Your task to perform on an android device: Open calendar and show me the second week of next month Image 0: 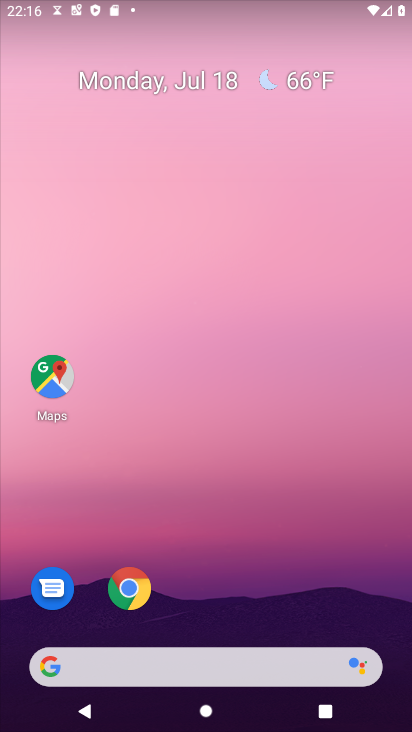
Step 0: press home button
Your task to perform on an android device: Open calendar and show me the second week of next month Image 1: 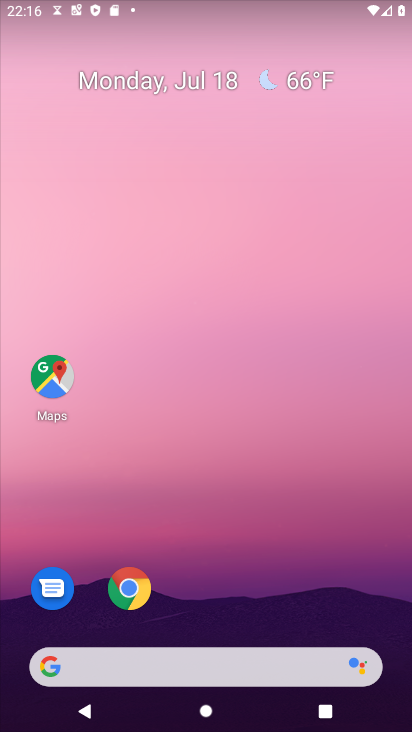
Step 1: drag from (178, 666) to (314, 135)
Your task to perform on an android device: Open calendar and show me the second week of next month Image 2: 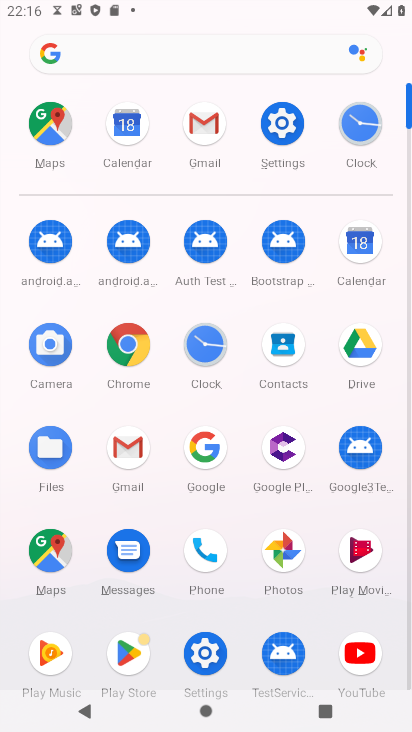
Step 2: click (369, 252)
Your task to perform on an android device: Open calendar and show me the second week of next month Image 3: 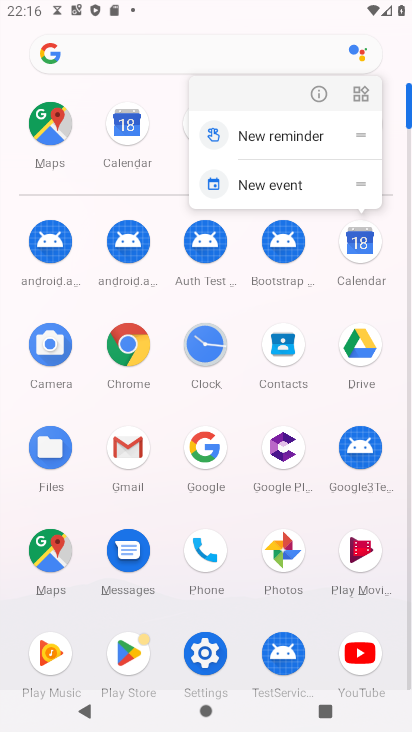
Step 3: click (357, 246)
Your task to perform on an android device: Open calendar and show me the second week of next month Image 4: 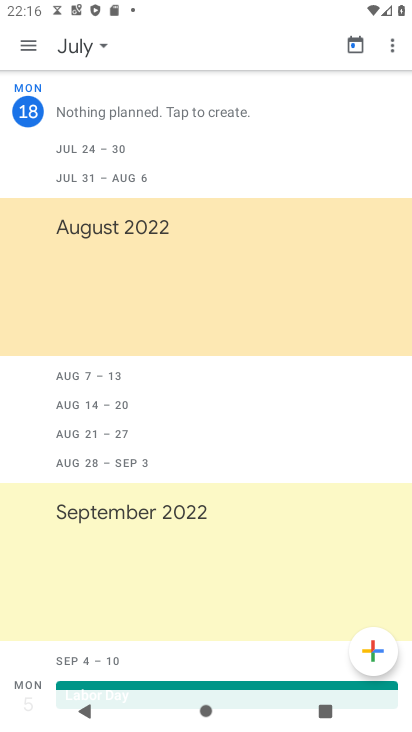
Step 4: click (75, 50)
Your task to perform on an android device: Open calendar and show me the second week of next month Image 5: 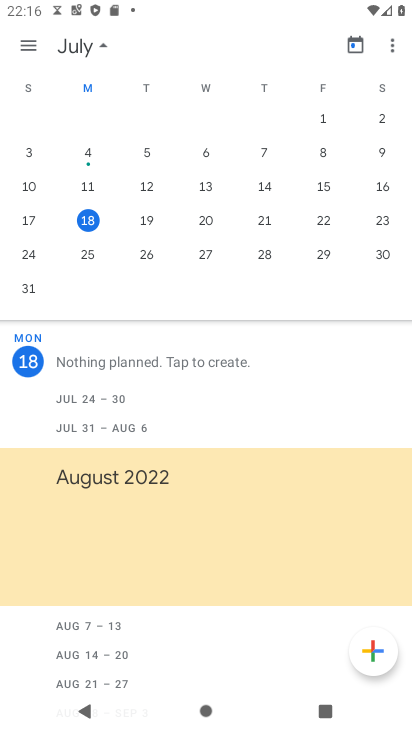
Step 5: drag from (369, 190) to (0, 181)
Your task to perform on an android device: Open calendar and show me the second week of next month Image 6: 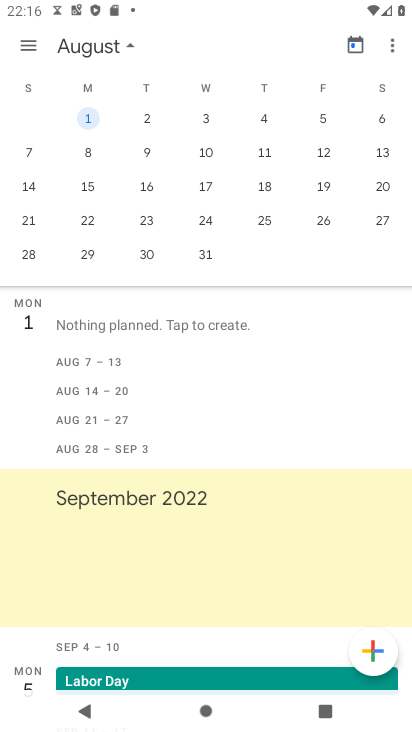
Step 6: click (30, 156)
Your task to perform on an android device: Open calendar and show me the second week of next month Image 7: 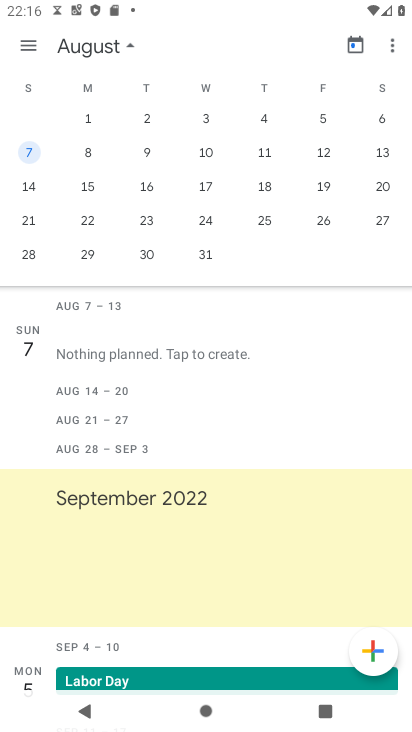
Step 7: click (31, 48)
Your task to perform on an android device: Open calendar and show me the second week of next month Image 8: 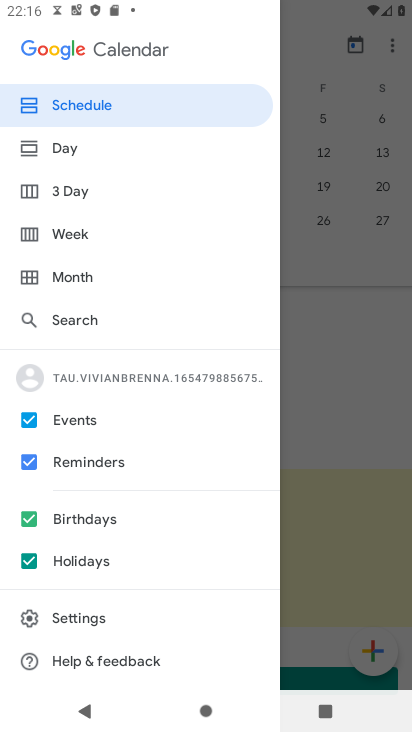
Step 8: click (73, 232)
Your task to perform on an android device: Open calendar and show me the second week of next month Image 9: 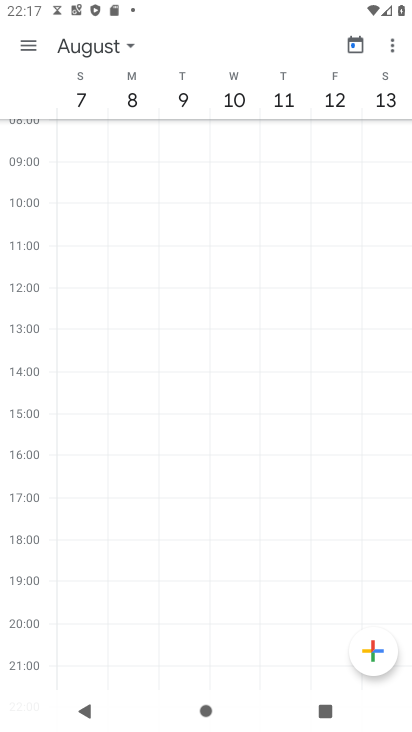
Step 9: task complete